Your task to perform on an android device: find snoozed emails in the gmail app Image 0: 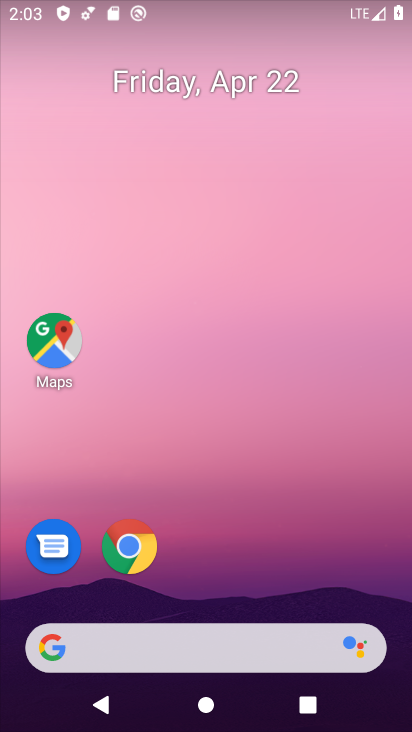
Step 0: drag from (267, 413) to (290, 116)
Your task to perform on an android device: find snoozed emails in the gmail app Image 1: 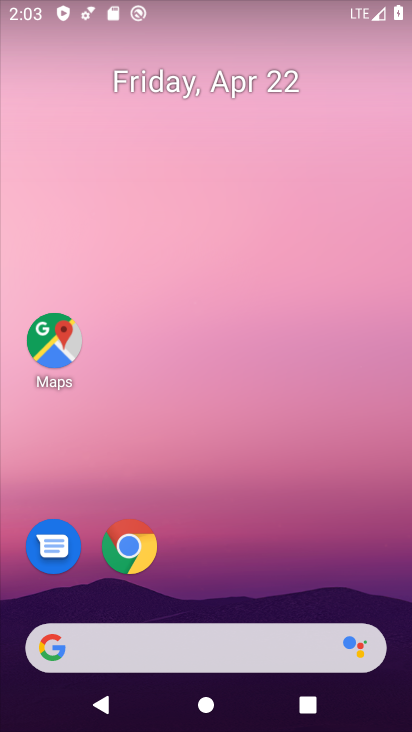
Step 1: drag from (267, 459) to (272, 223)
Your task to perform on an android device: find snoozed emails in the gmail app Image 2: 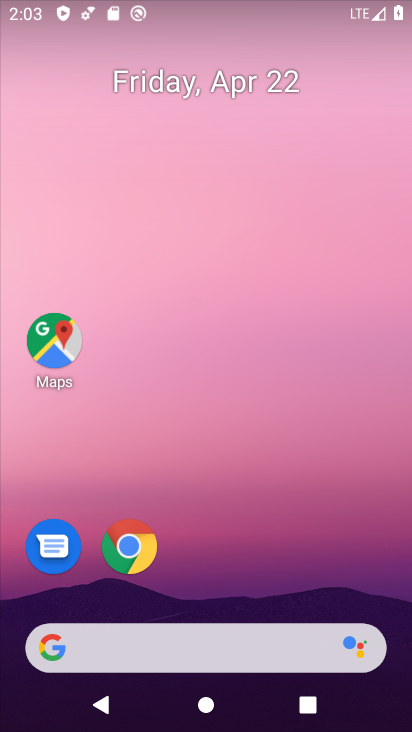
Step 2: drag from (277, 516) to (287, 165)
Your task to perform on an android device: find snoozed emails in the gmail app Image 3: 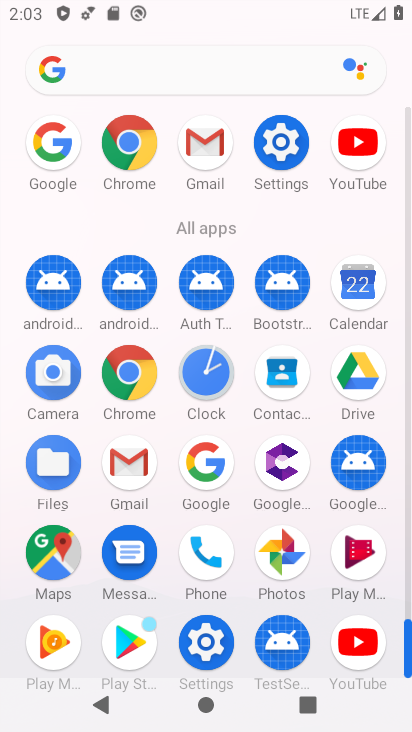
Step 3: drag from (244, 501) to (266, 185)
Your task to perform on an android device: find snoozed emails in the gmail app Image 4: 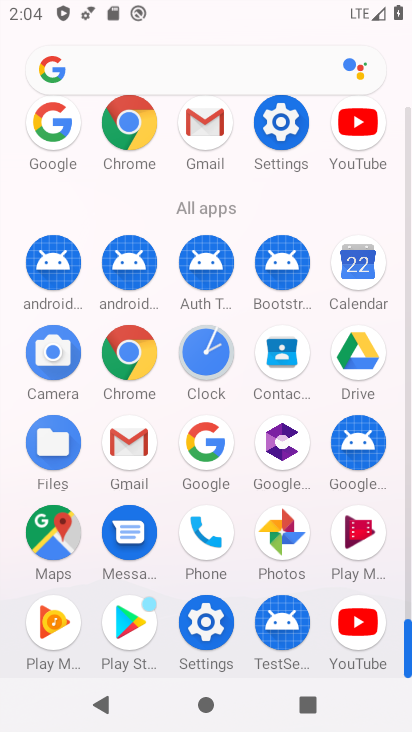
Step 4: click (142, 454)
Your task to perform on an android device: find snoozed emails in the gmail app Image 5: 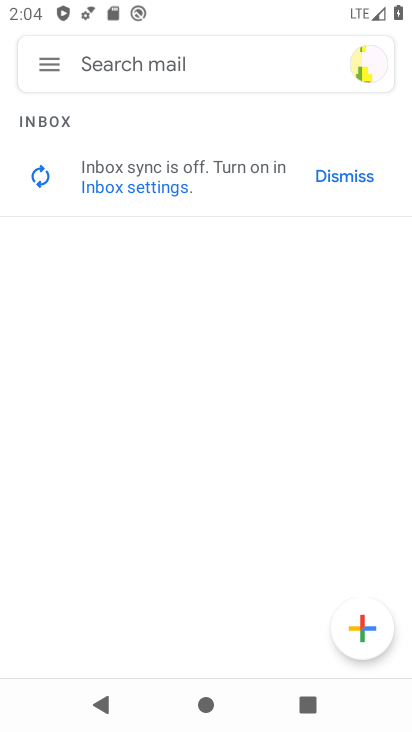
Step 5: click (54, 75)
Your task to perform on an android device: find snoozed emails in the gmail app Image 6: 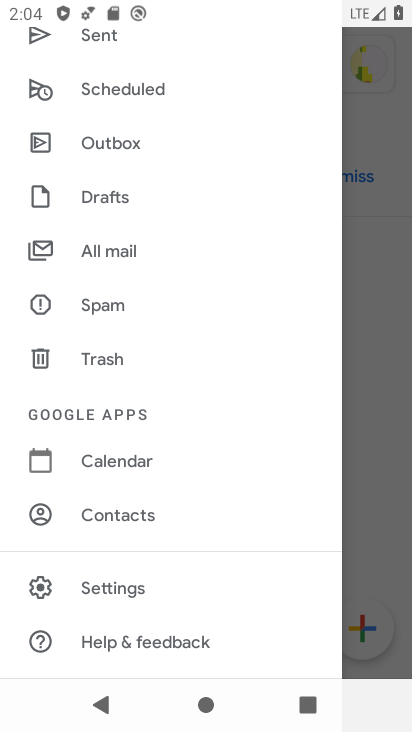
Step 6: drag from (110, 220) to (79, 396)
Your task to perform on an android device: find snoozed emails in the gmail app Image 7: 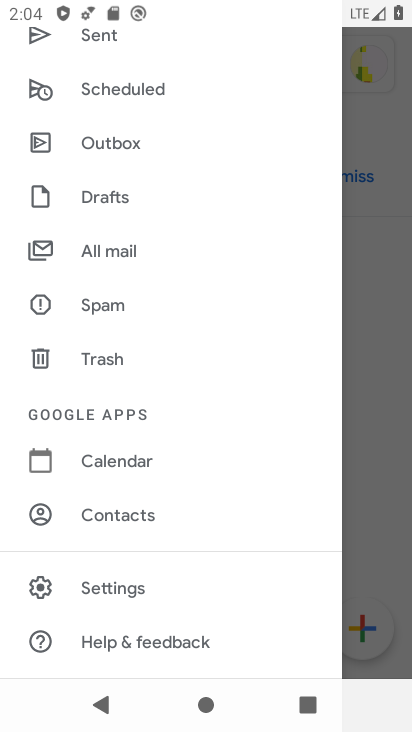
Step 7: drag from (123, 294) to (130, 503)
Your task to perform on an android device: find snoozed emails in the gmail app Image 8: 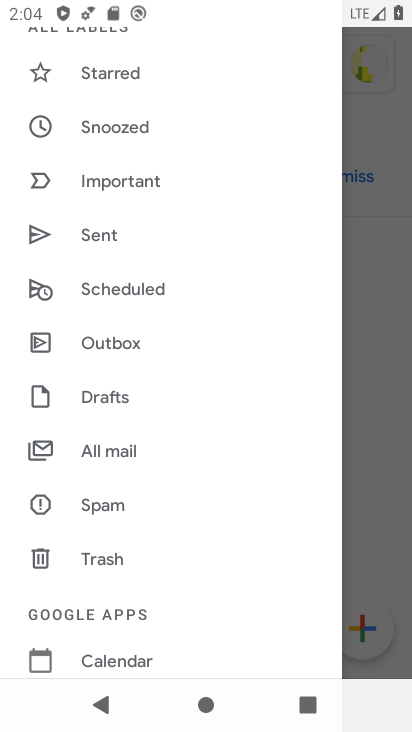
Step 8: click (157, 130)
Your task to perform on an android device: find snoozed emails in the gmail app Image 9: 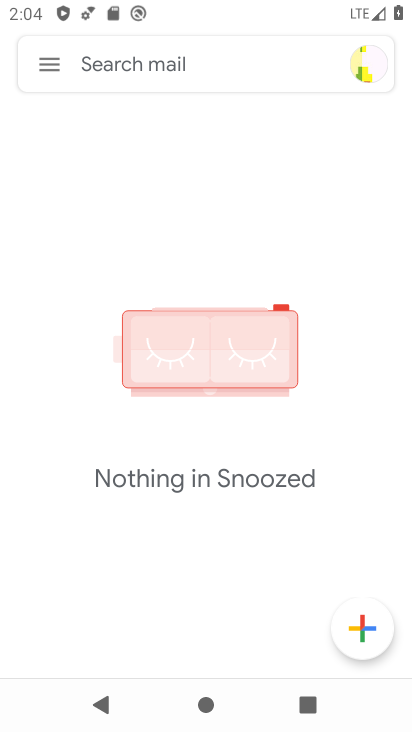
Step 9: task complete